Your task to perform on an android device: allow notifications from all sites in the chrome app Image 0: 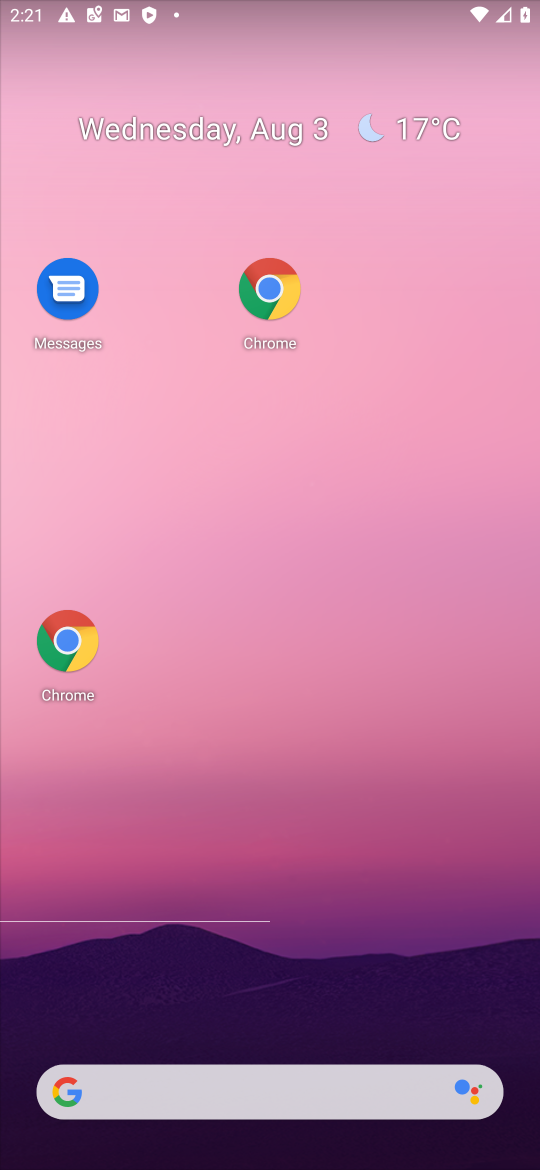
Step 0: click (50, 656)
Your task to perform on an android device: allow notifications from all sites in the chrome app Image 1: 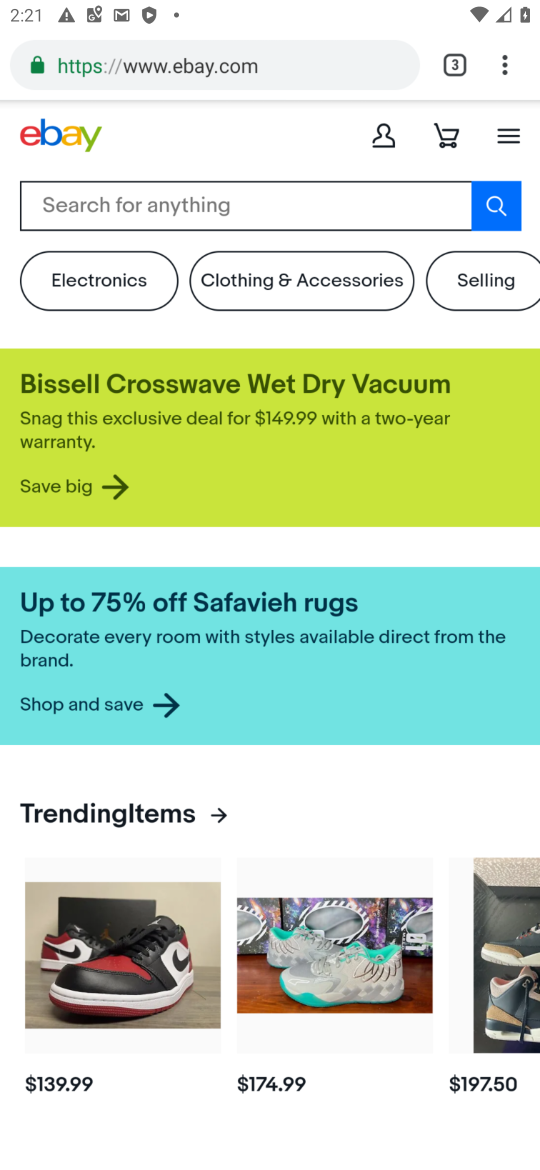
Step 1: click (81, 647)
Your task to perform on an android device: allow notifications from all sites in the chrome app Image 2: 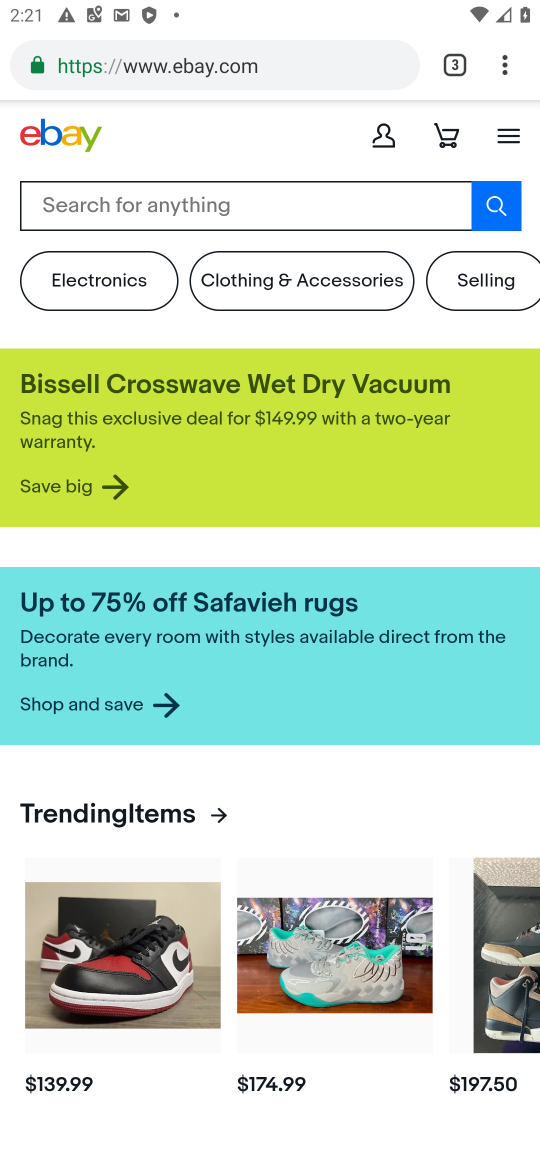
Step 2: click (497, 68)
Your task to perform on an android device: allow notifications from all sites in the chrome app Image 3: 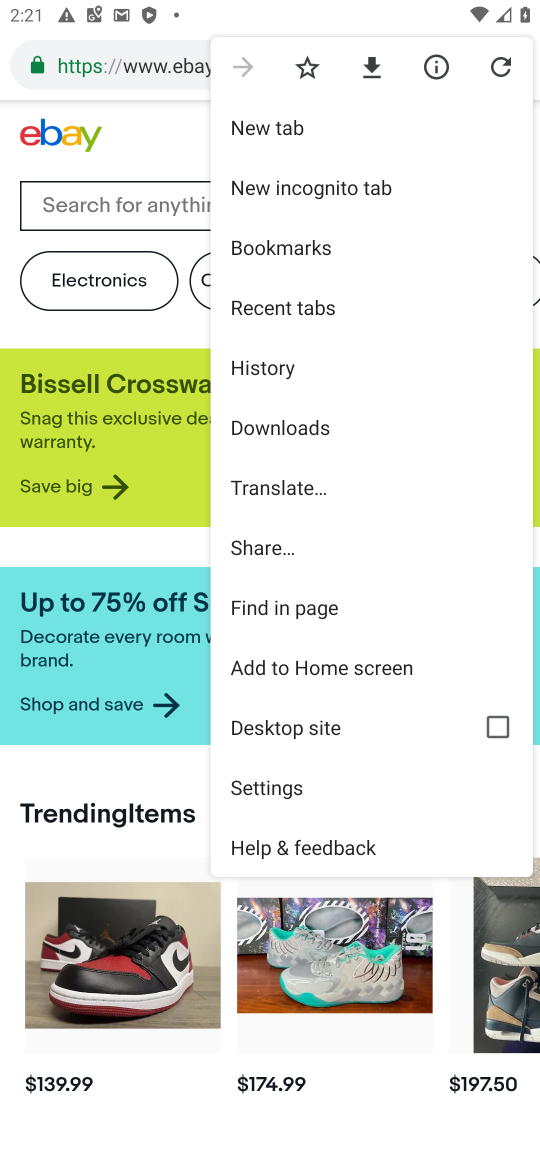
Step 3: click (295, 795)
Your task to perform on an android device: allow notifications from all sites in the chrome app Image 4: 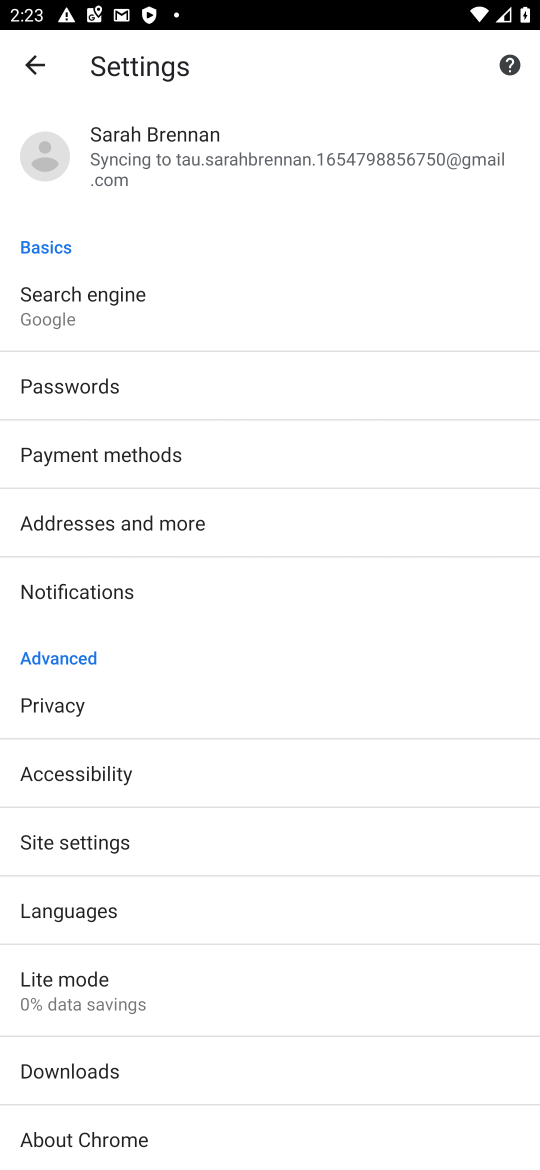
Step 4: click (76, 569)
Your task to perform on an android device: allow notifications from all sites in the chrome app Image 5: 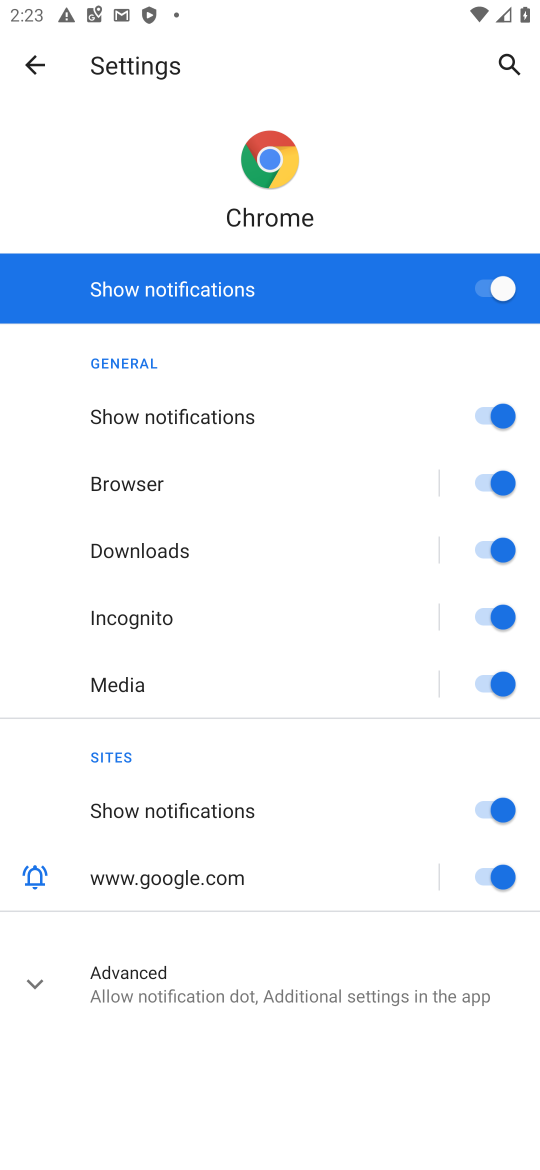
Step 5: task complete